Your task to perform on an android device: Open CNN.com Image 0: 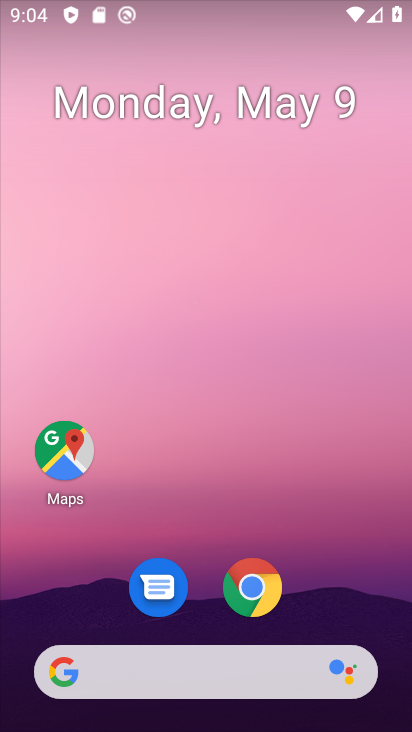
Step 0: click (258, 585)
Your task to perform on an android device: Open CNN.com Image 1: 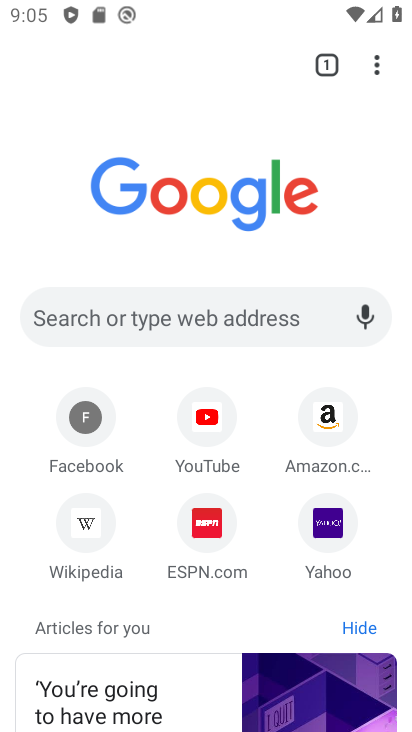
Step 1: click (122, 321)
Your task to perform on an android device: Open CNN.com Image 2: 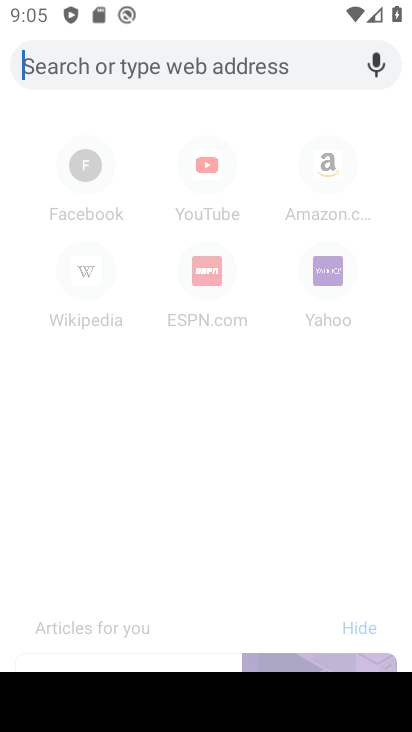
Step 2: type "cnn.com"
Your task to perform on an android device: Open CNN.com Image 3: 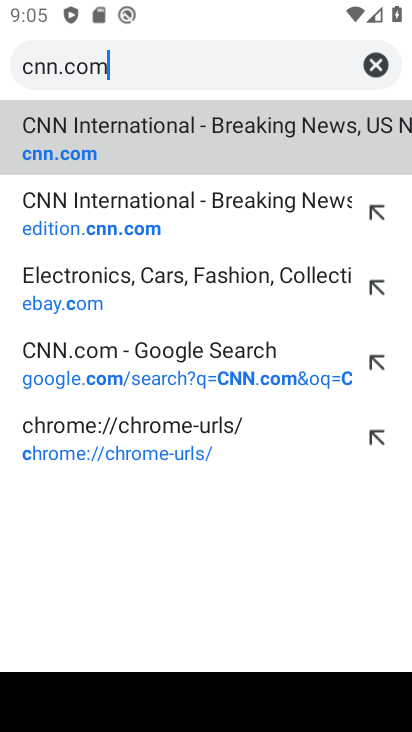
Step 3: type ""
Your task to perform on an android device: Open CNN.com Image 4: 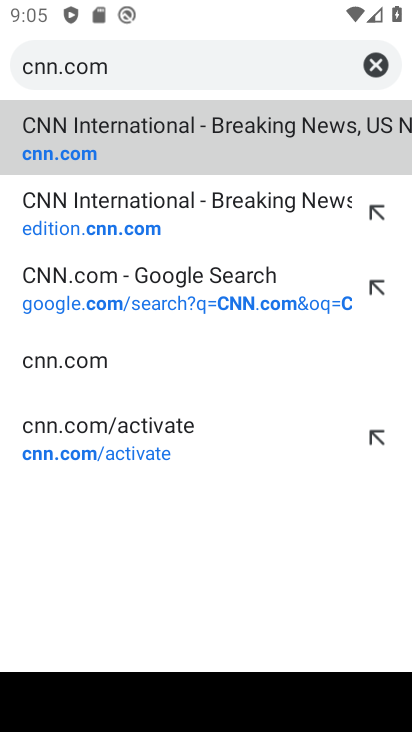
Step 4: click (266, 150)
Your task to perform on an android device: Open CNN.com Image 5: 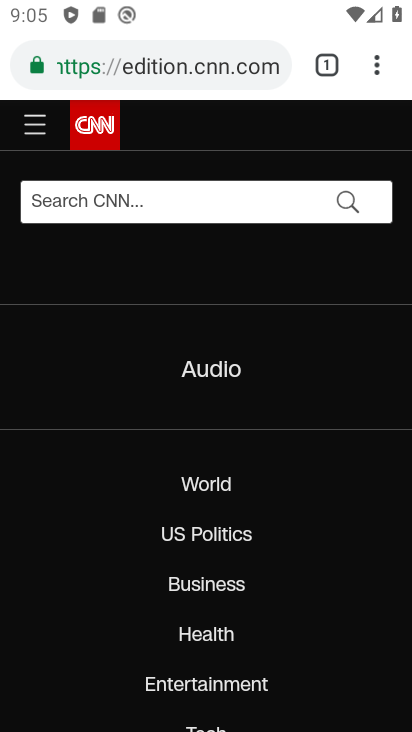
Step 5: task complete